Your task to perform on an android device: Search for "logitech g502" on walmart, select the first entry, and add it to the cart. Image 0: 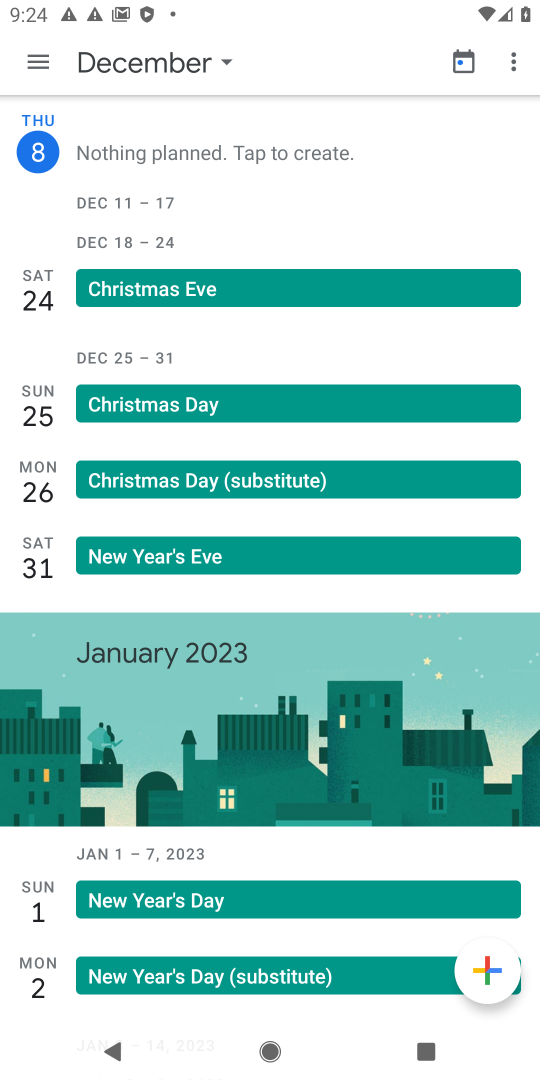
Step 0: press home button
Your task to perform on an android device: Search for "logitech g502" on walmart, select the first entry, and add it to the cart. Image 1: 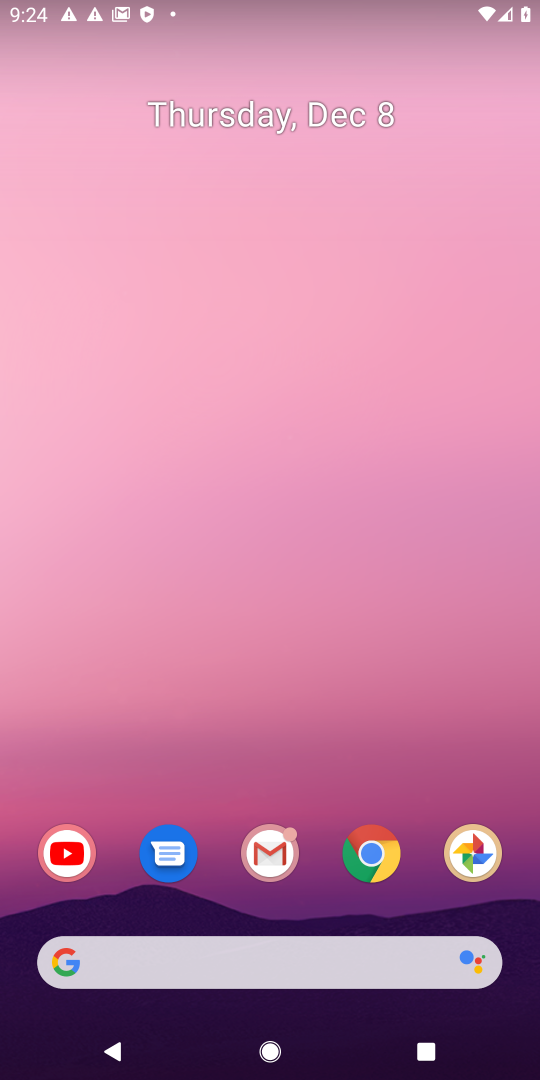
Step 1: click (220, 547)
Your task to perform on an android device: Search for "logitech g502" on walmart, select the first entry, and add it to the cart. Image 2: 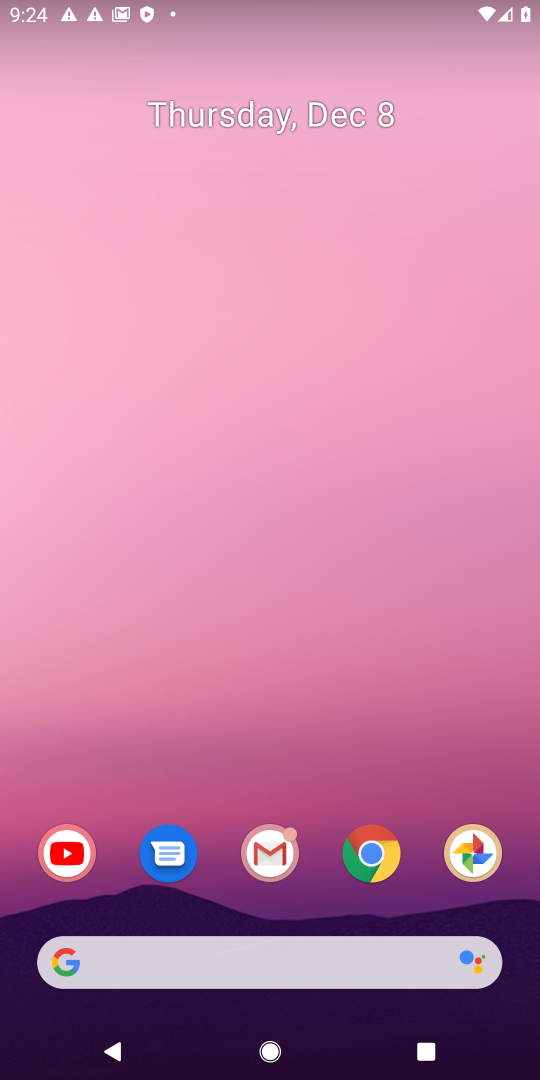
Step 2: click (148, 958)
Your task to perform on an android device: Search for "logitech g502" on walmart, select the first entry, and add it to the cart. Image 3: 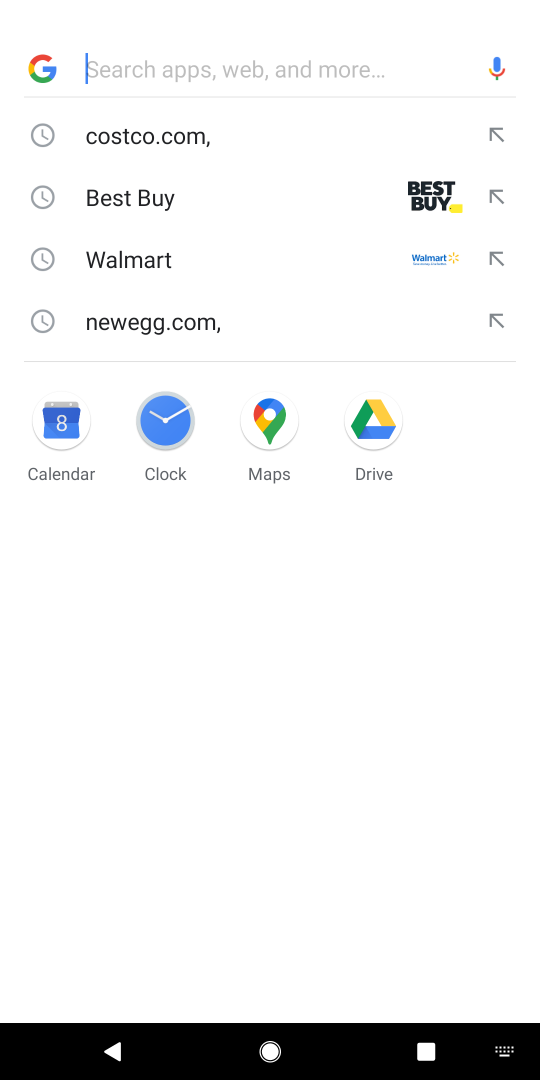
Step 3: click (182, 250)
Your task to perform on an android device: Search for "logitech g502" on walmart, select the first entry, and add it to the cart. Image 4: 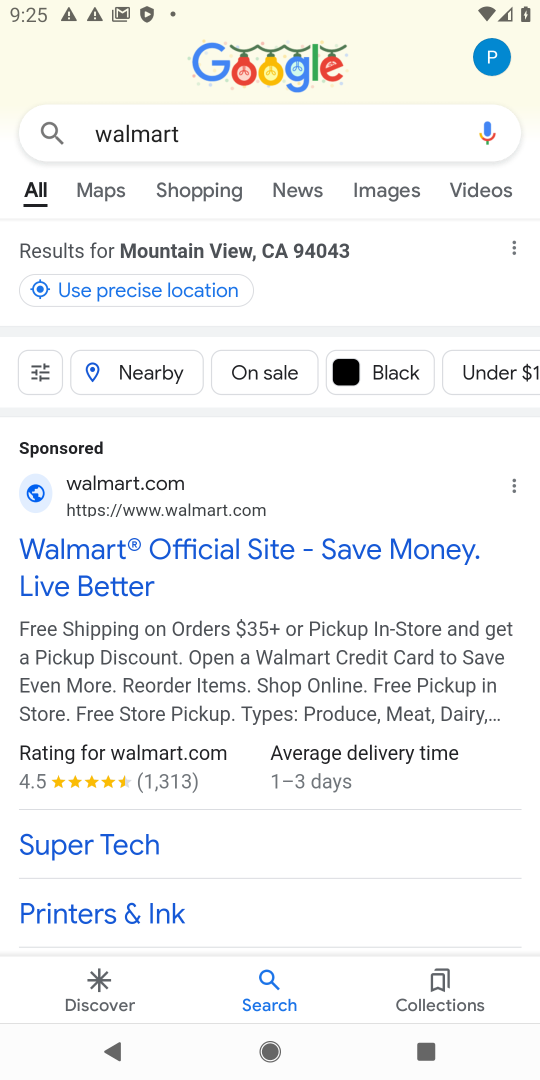
Step 4: click (128, 487)
Your task to perform on an android device: Search for "logitech g502" on walmart, select the first entry, and add it to the cart. Image 5: 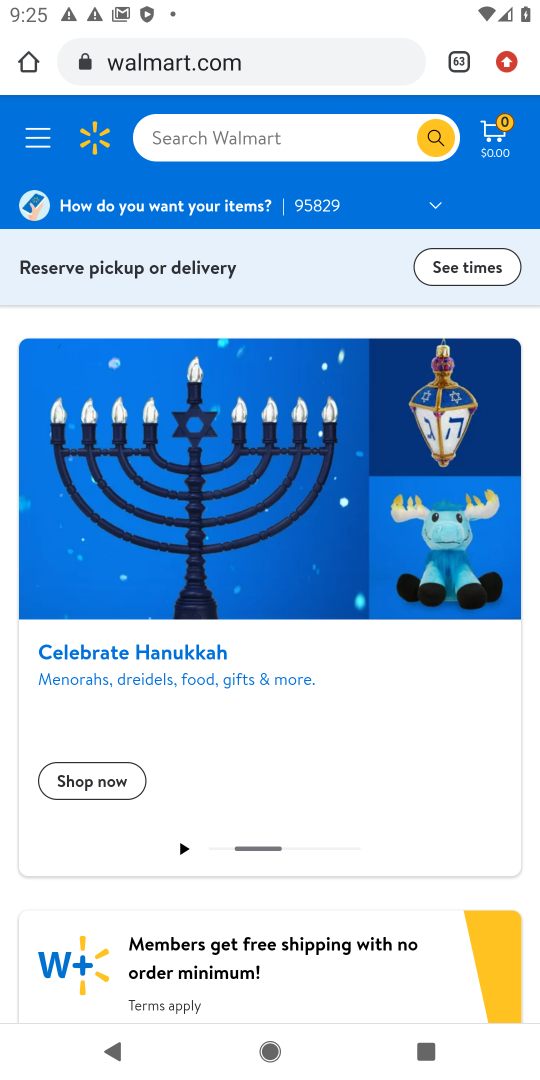
Step 5: click (236, 142)
Your task to perform on an android device: Search for "logitech g502" on walmart, select the first entry, and add it to the cart. Image 6: 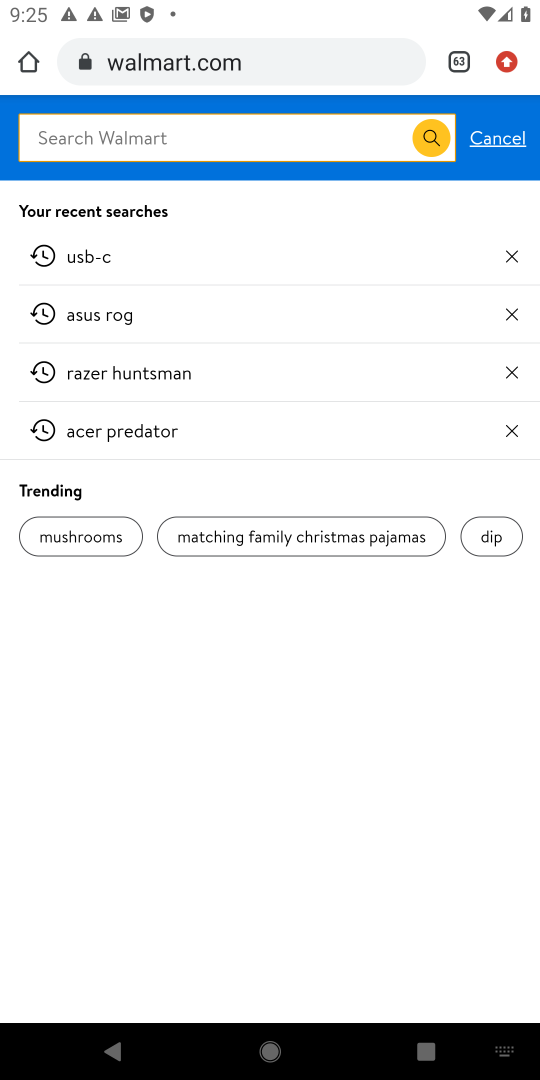
Step 6: type "logitech g502"
Your task to perform on an android device: Search for "logitech g502" on walmart, select the first entry, and add it to the cart. Image 7: 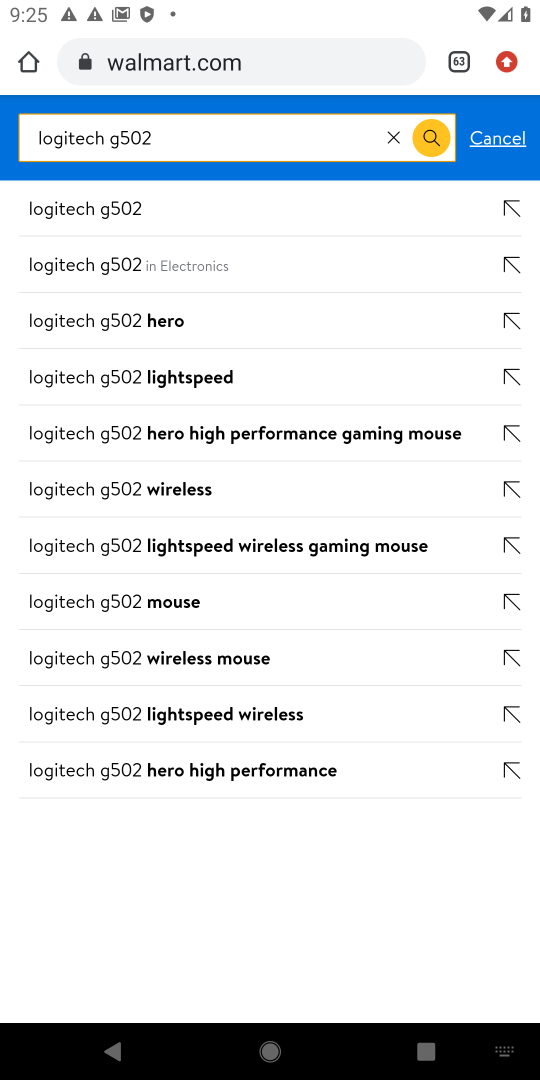
Step 7: click (117, 213)
Your task to perform on an android device: Search for "logitech g502" on walmart, select the first entry, and add it to the cart. Image 8: 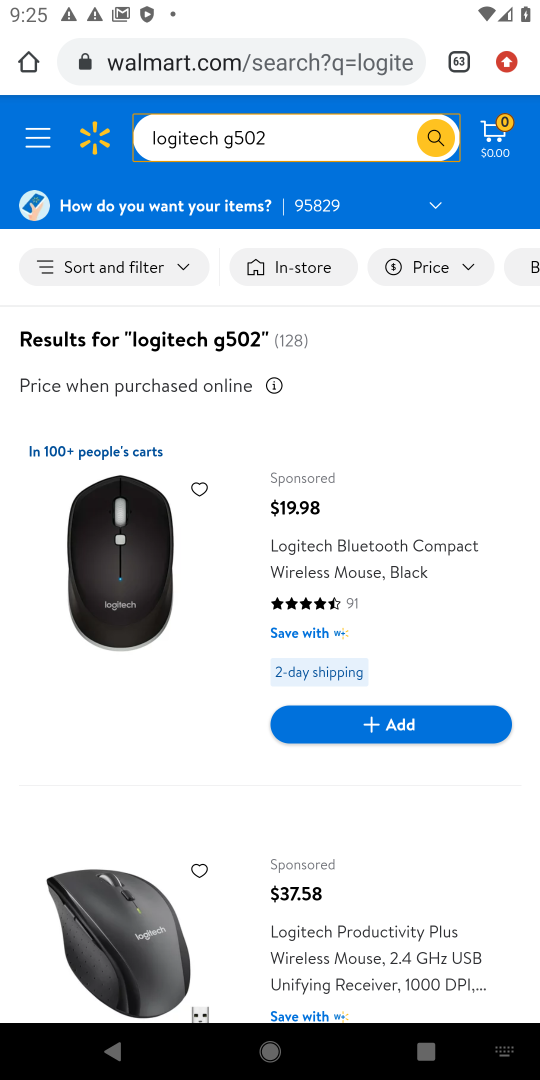
Step 8: click (355, 738)
Your task to perform on an android device: Search for "logitech g502" on walmart, select the first entry, and add it to the cart. Image 9: 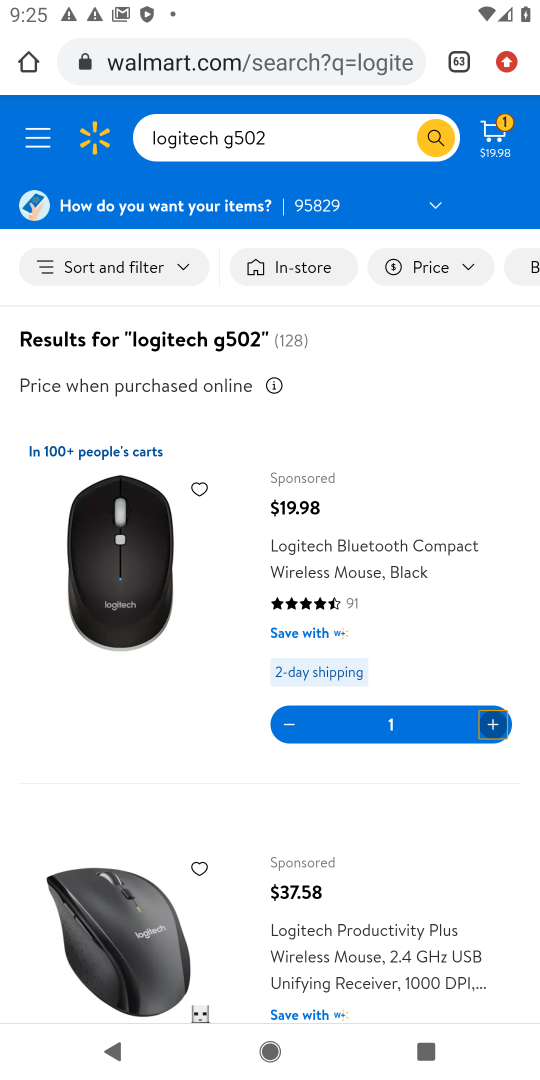
Step 9: task complete